Your task to perform on an android device: Open the Play Movies app and select the watchlist tab. Image 0: 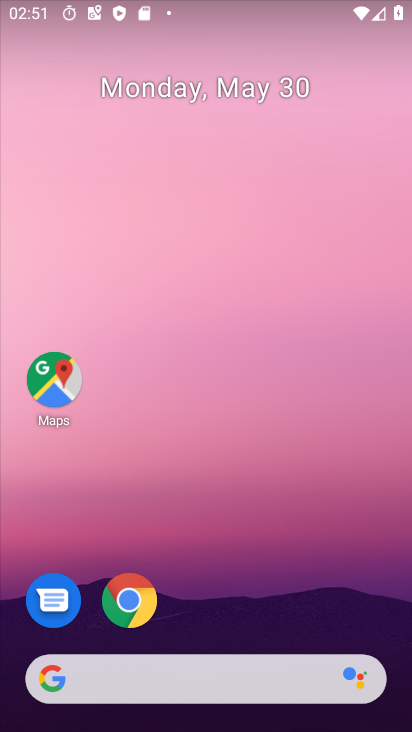
Step 0: drag from (259, 609) to (214, 46)
Your task to perform on an android device: Open the Play Movies app and select the watchlist tab. Image 1: 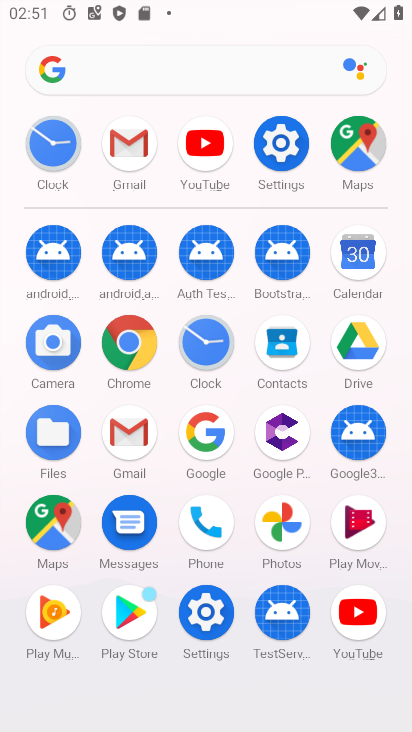
Step 1: click (367, 613)
Your task to perform on an android device: Open the Play Movies app and select the watchlist tab. Image 2: 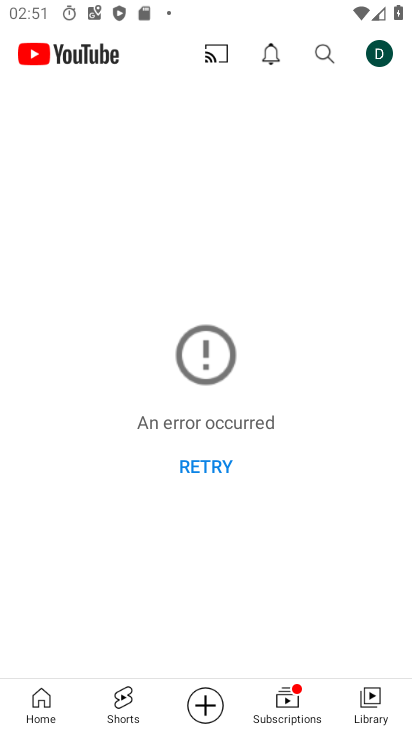
Step 2: press home button
Your task to perform on an android device: Open the Play Movies app and select the watchlist tab. Image 3: 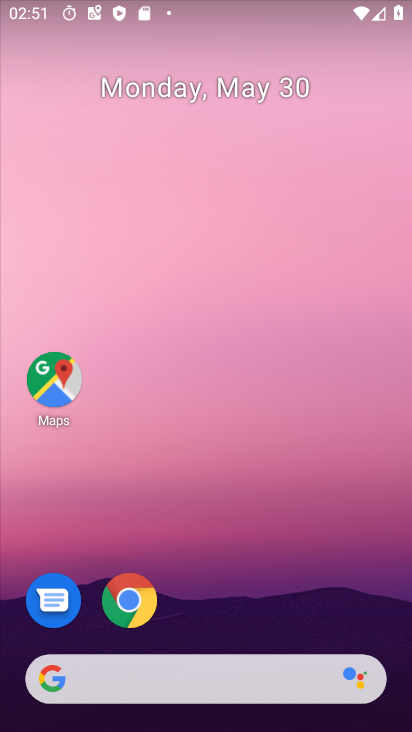
Step 3: drag from (296, 620) to (284, 49)
Your task to perform on an android device: Open the Play Movies app and select the watchlist tab. Image 4: 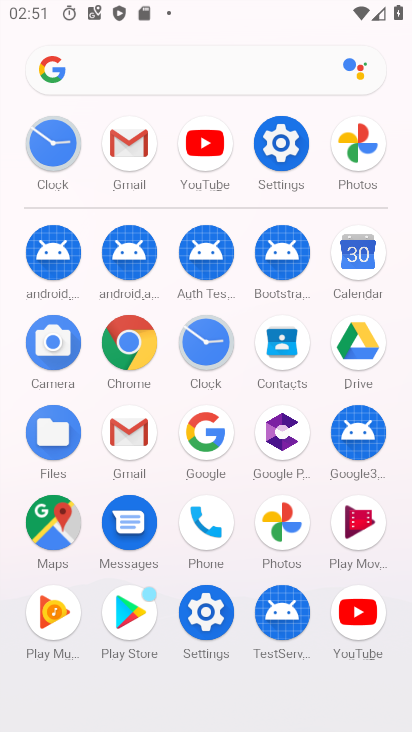
Step 4: click (359, 514)
Your task to perform on an android device: Open the Play Movies app and select the watchlist tab. Image 5: 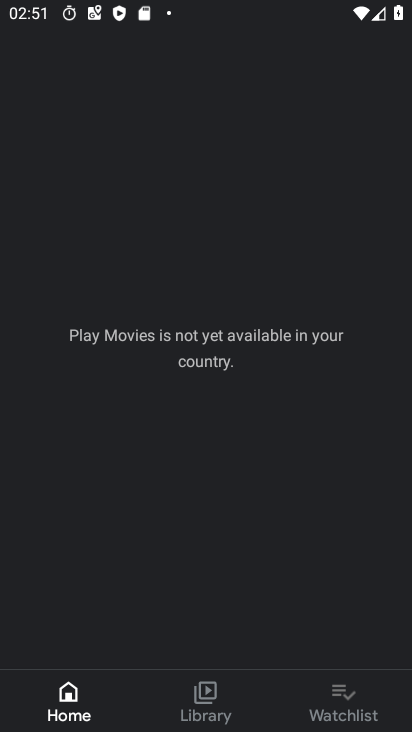
Step 5: click (340, 704)
Your task to perform on an android device: Open the Play Movies app and select the watchlist tab. Image 6: 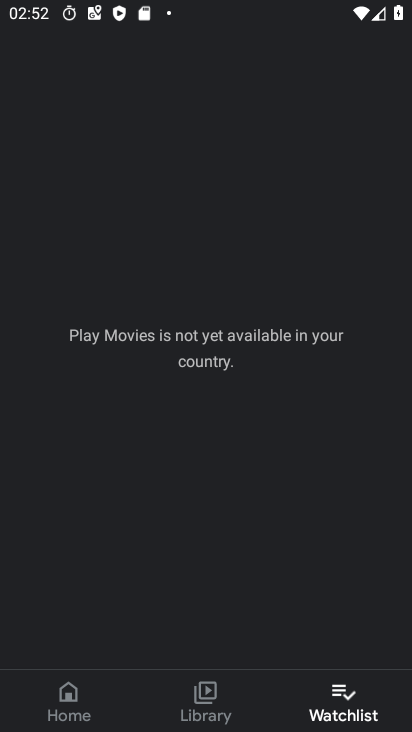
Step 6: task complete